Your task to perform on an android device: set the stopwatch Image 0: 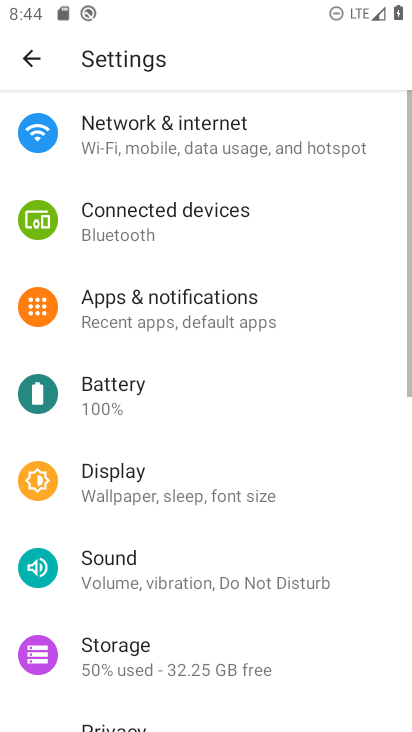
Step 0: press home button
Your task to perform on an android device: set the stopwatch Image 1: 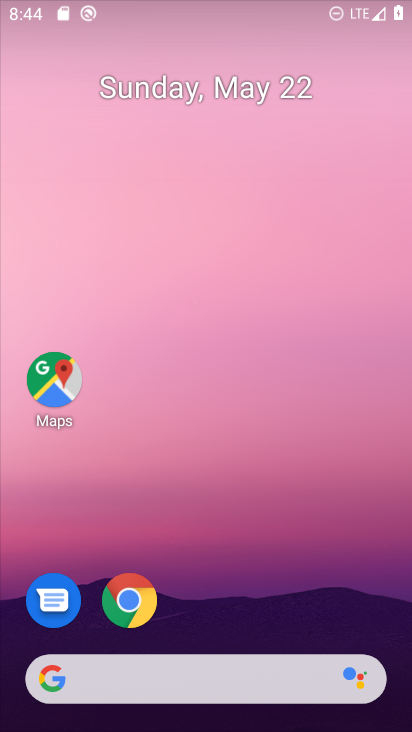
Step 1: drag from (337, 466) to (278, 0)
Your task to perform on an android device: set the stopwatch Image 2: 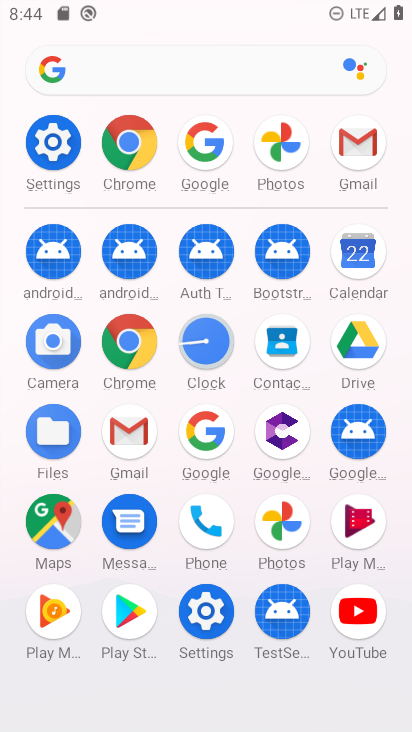
Step 2: click (206, 347)
Your task to perform on an android device: set the stopwatch Image 3: 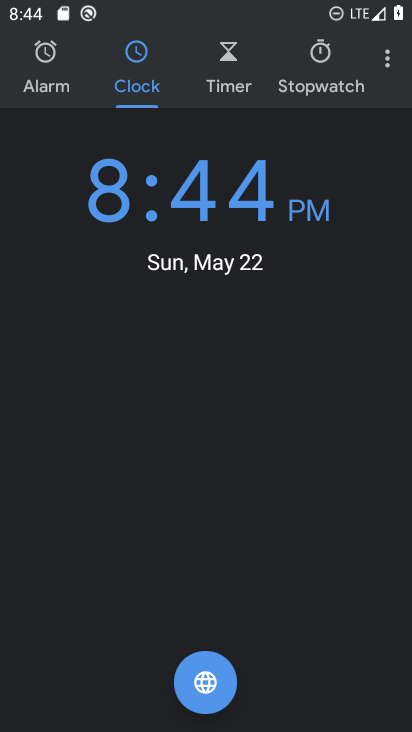
Step 3: click (316, 76)
Your task to perform on an android device: set the stopwatch Image 4: 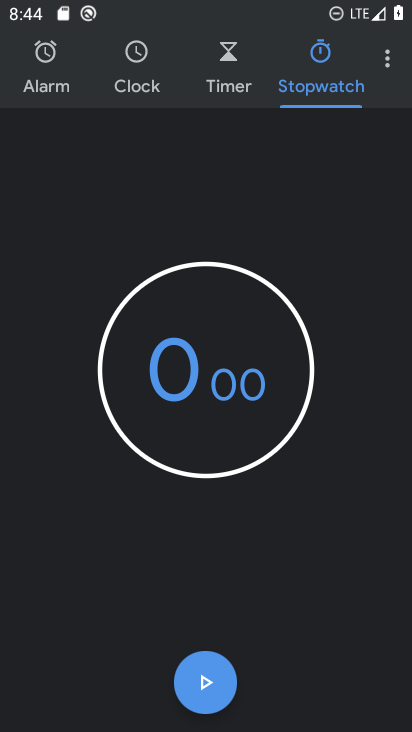
Step 4: task complete